Your task to perform on an android device: Clear the cart on ebay. Search for "jbl flip 4" on ebay, select the first entry, add it to the cart, then select checkout. Image 0: 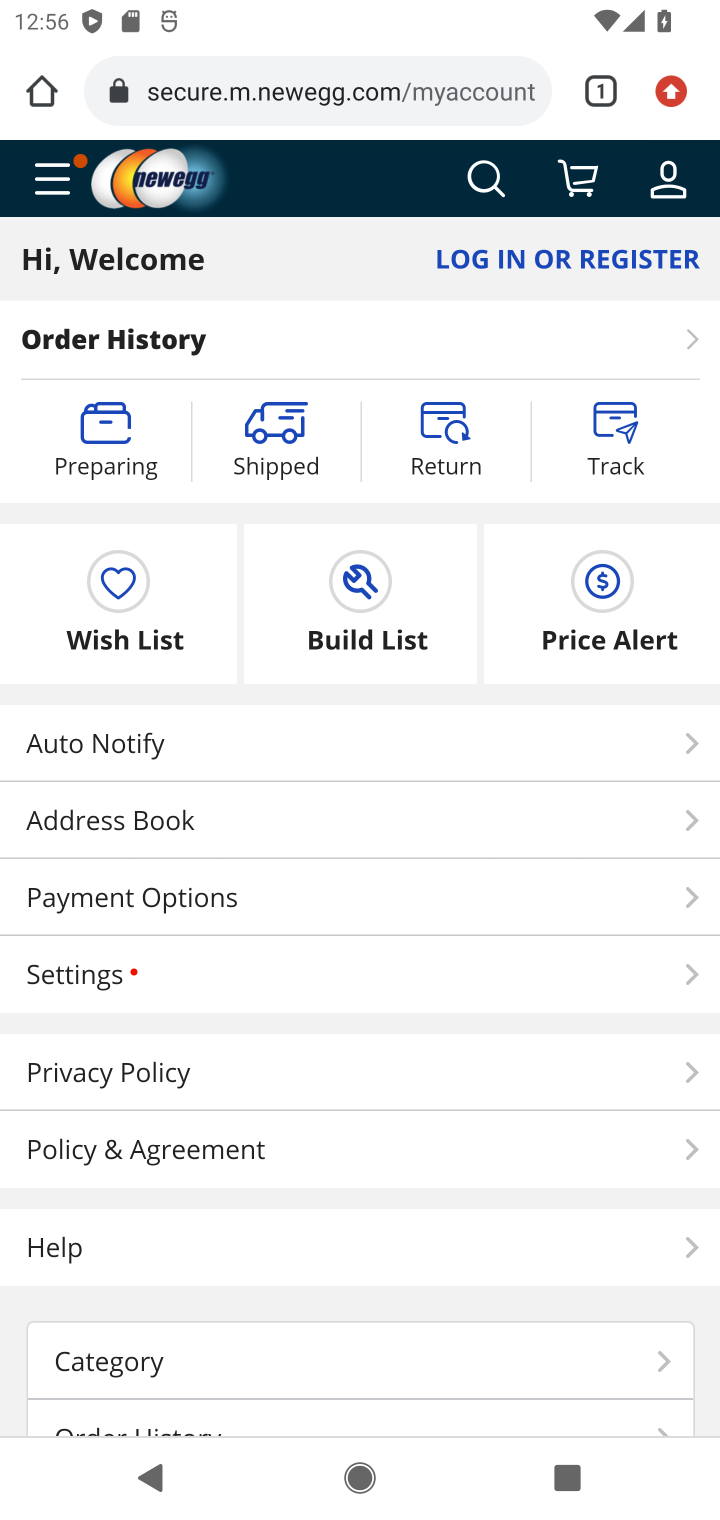
Step 0: click (48, 108)
Your task to perform on an android device: Clear the cart on ebay. Search for "jbl flip 4" on ebay, select the first entry, add it to the cart, then select checkout. Image 1: 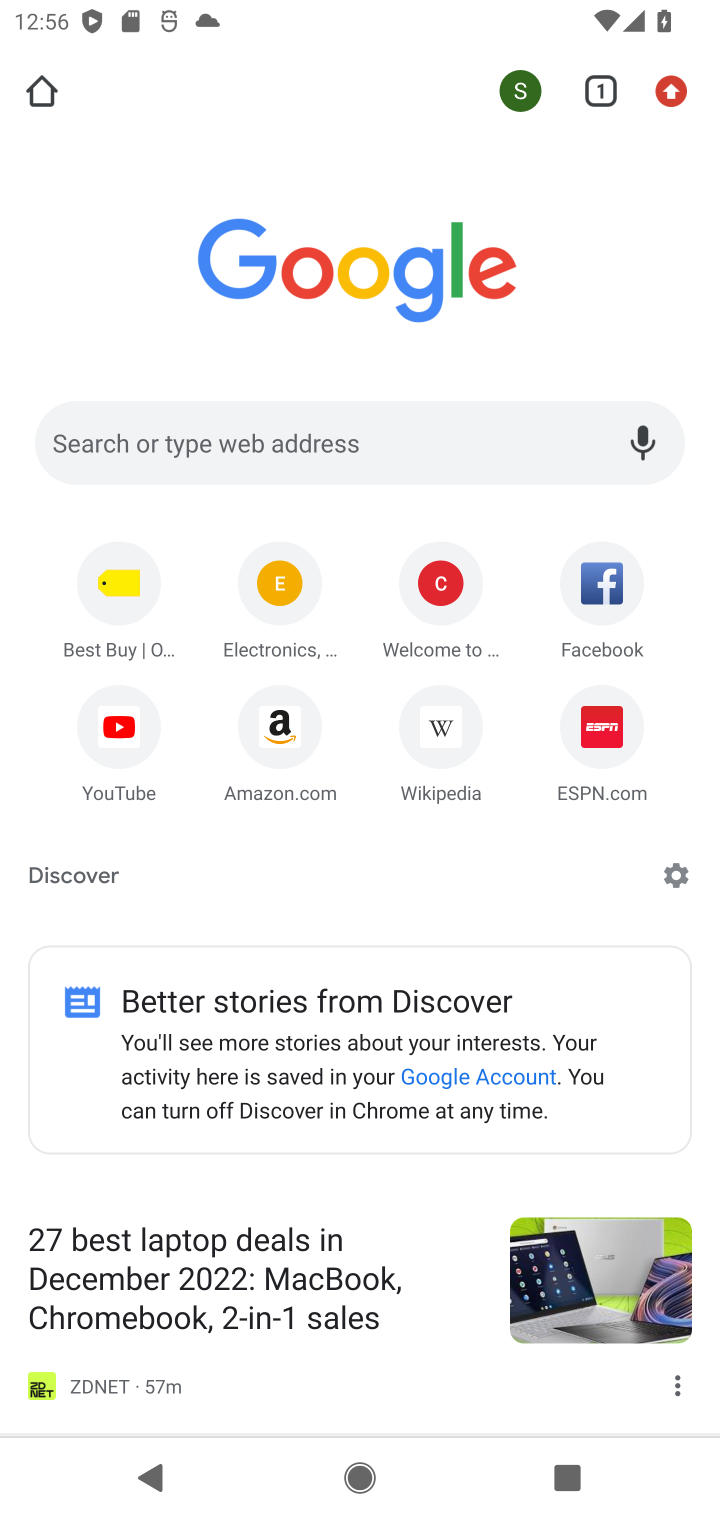
Step 1: click (299, 441)
Your task to perform on an android device: Clear the cart on ebay. Search for "jbl flip 4" on ebay, select the first entry, add it to the cart, then select checkout. Image 2: 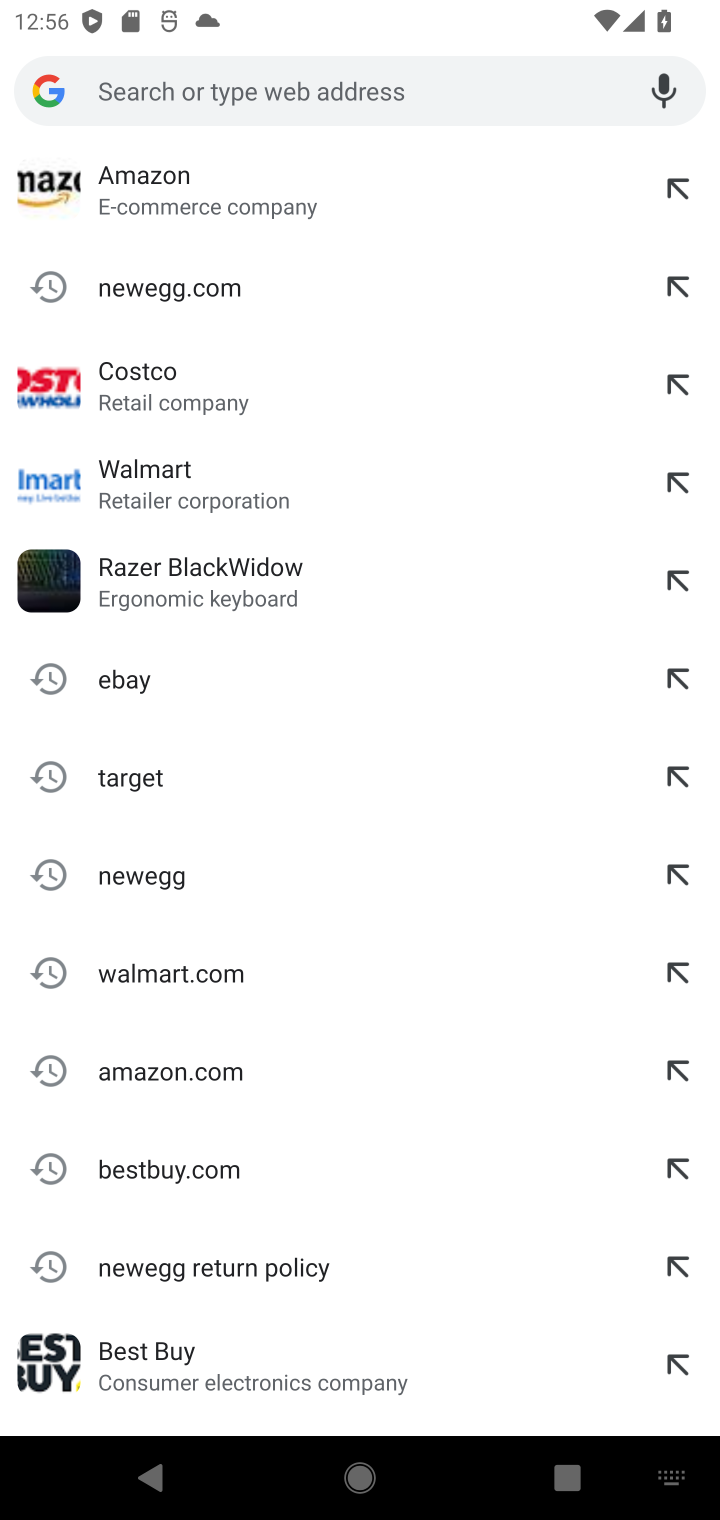
Step 2: click (155, 656)
Your task to perform on an android device: Clear the cart on ebay. Search for "jbl flip 4" on ebay, select the first entry, add it to the cart, then select checkout. Image 3: 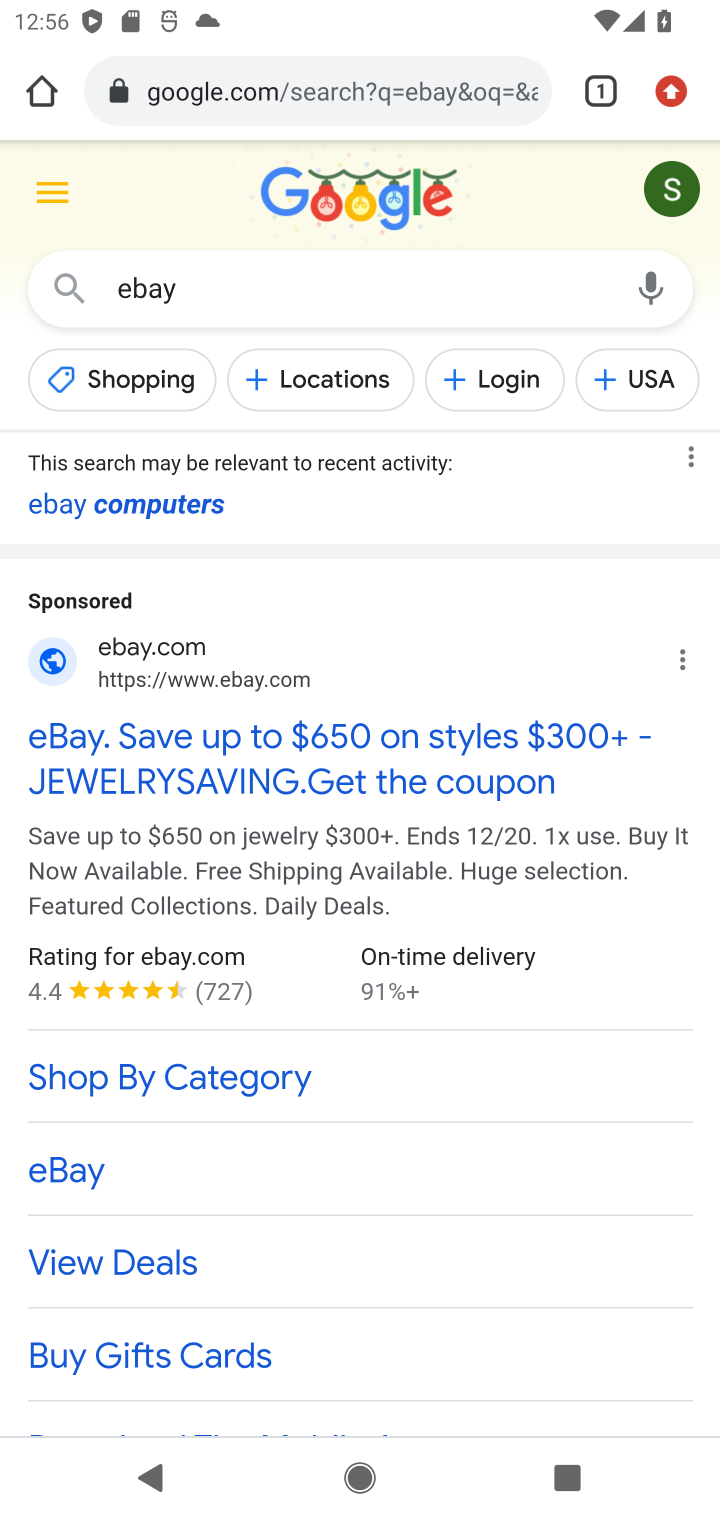
Step 3: click (93, 758)
Your task to perform on an android device: Clear the cart on ebay. Search for "jbl flip 4" on ebay, select the first entry, add it to the cart, then select checkout. Image 4: 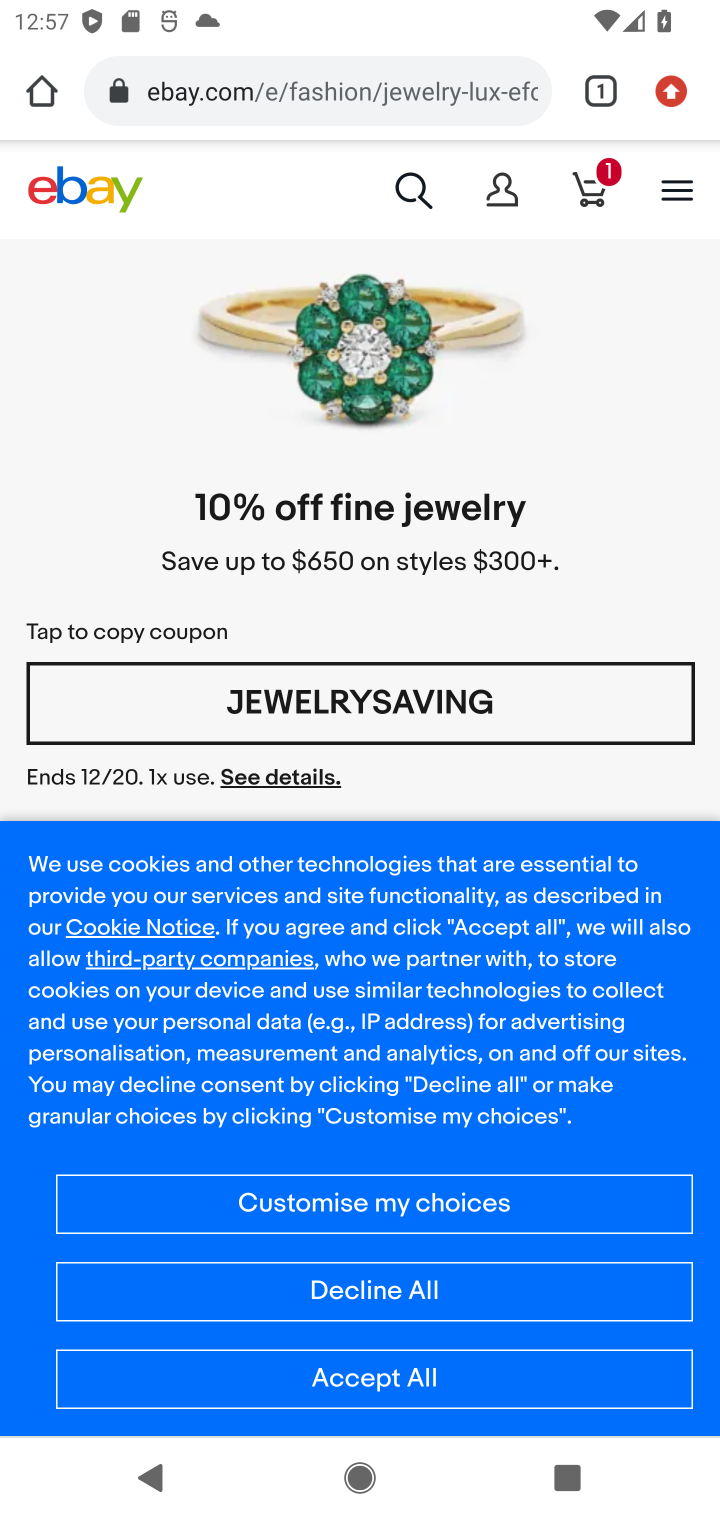
Step 4: task complete